Your task to perform on an android device: Search for vegetarian restaurants on Maps Image 0: 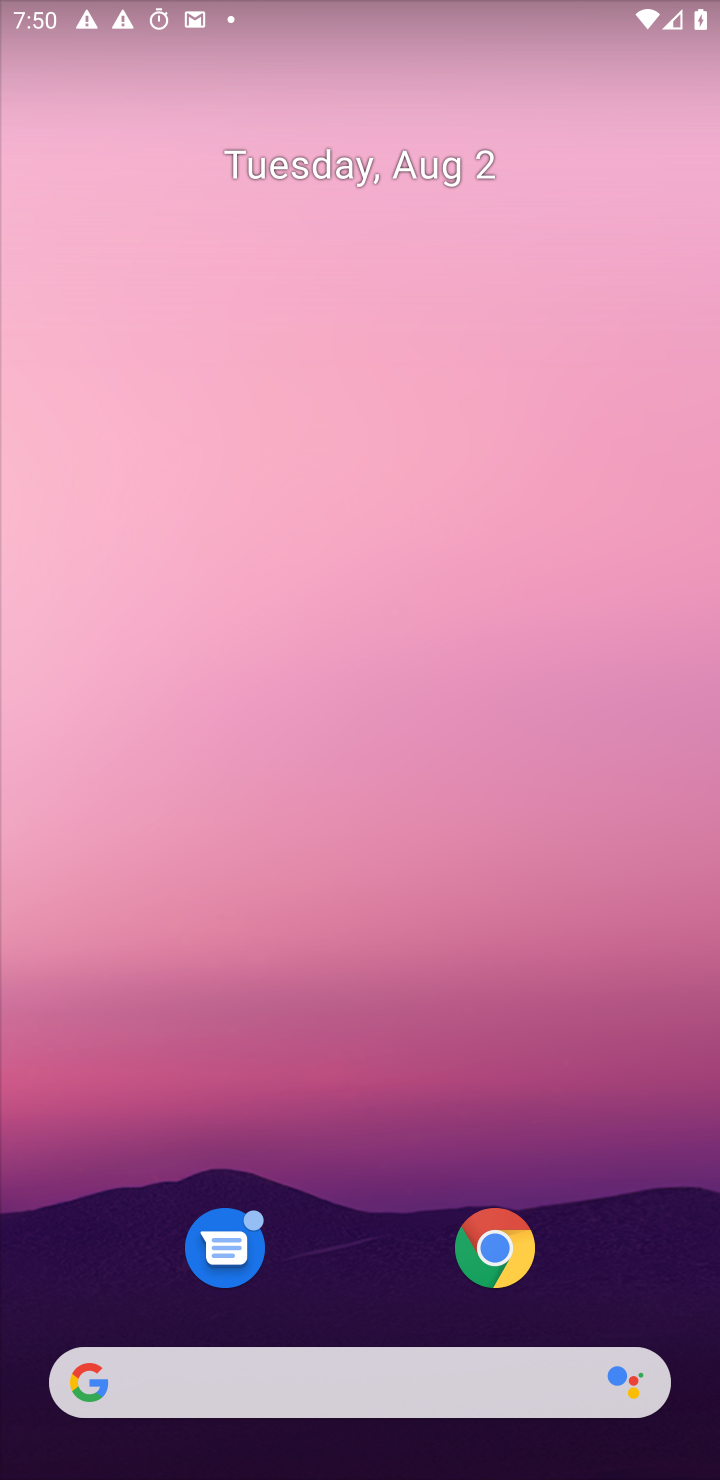
Step 0: drag from (310, 1252) to (449, 170)
Your task to perform on an android device: Search for vegetarian restaurants on Maps Image 1: 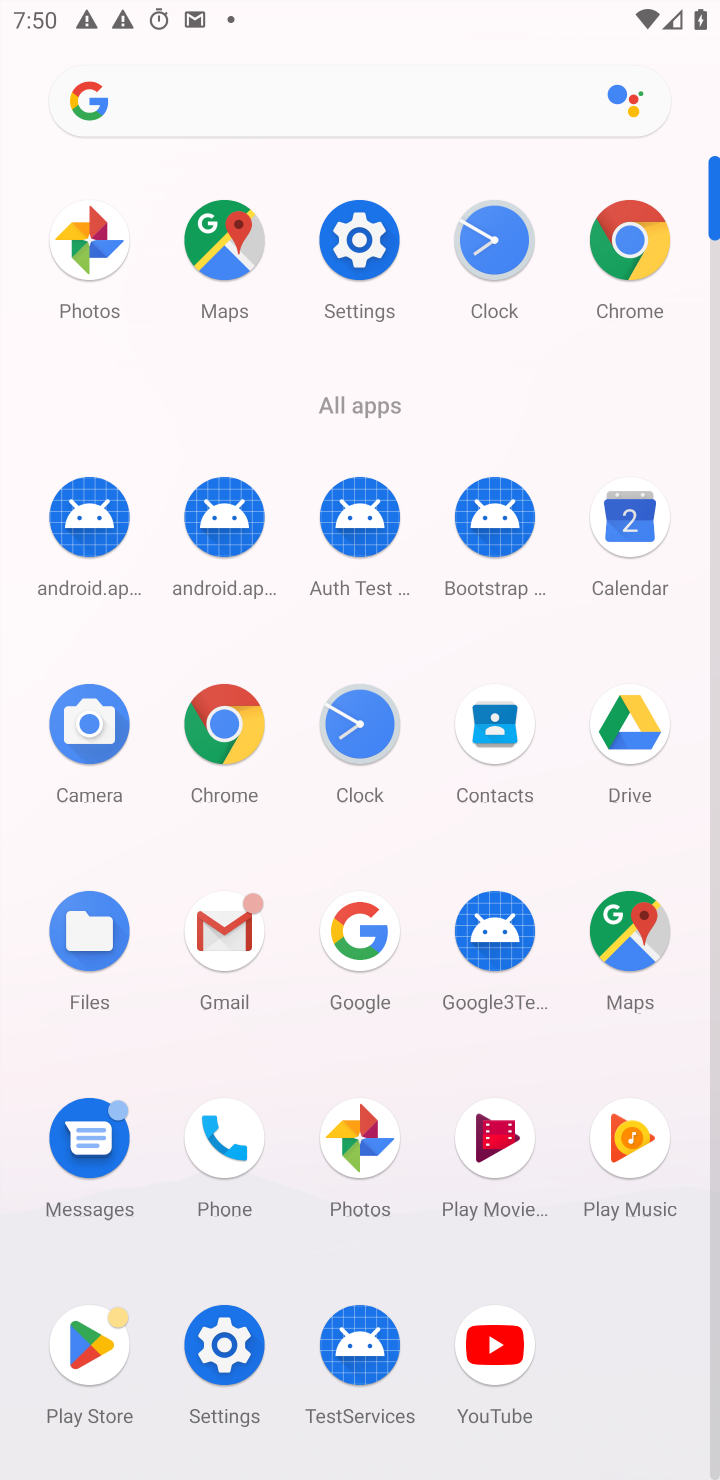
Step 1: click (621, 928)
Your task to perform on an android device: Search for vegetarian restaurants on Maps Image 2: 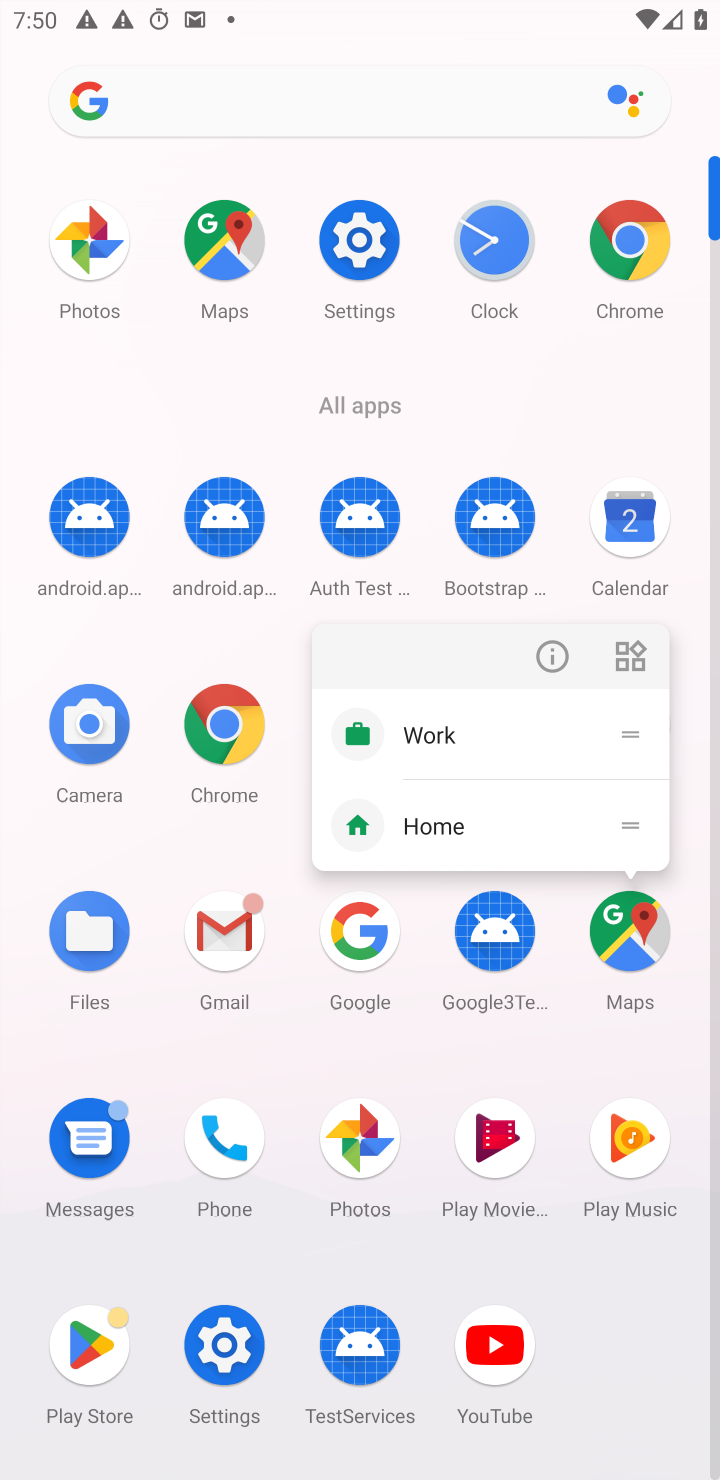
Step 2: click (542, 656)
Your task to perform on an android device: Search for vegetarian restaurants on Maps Image 3: 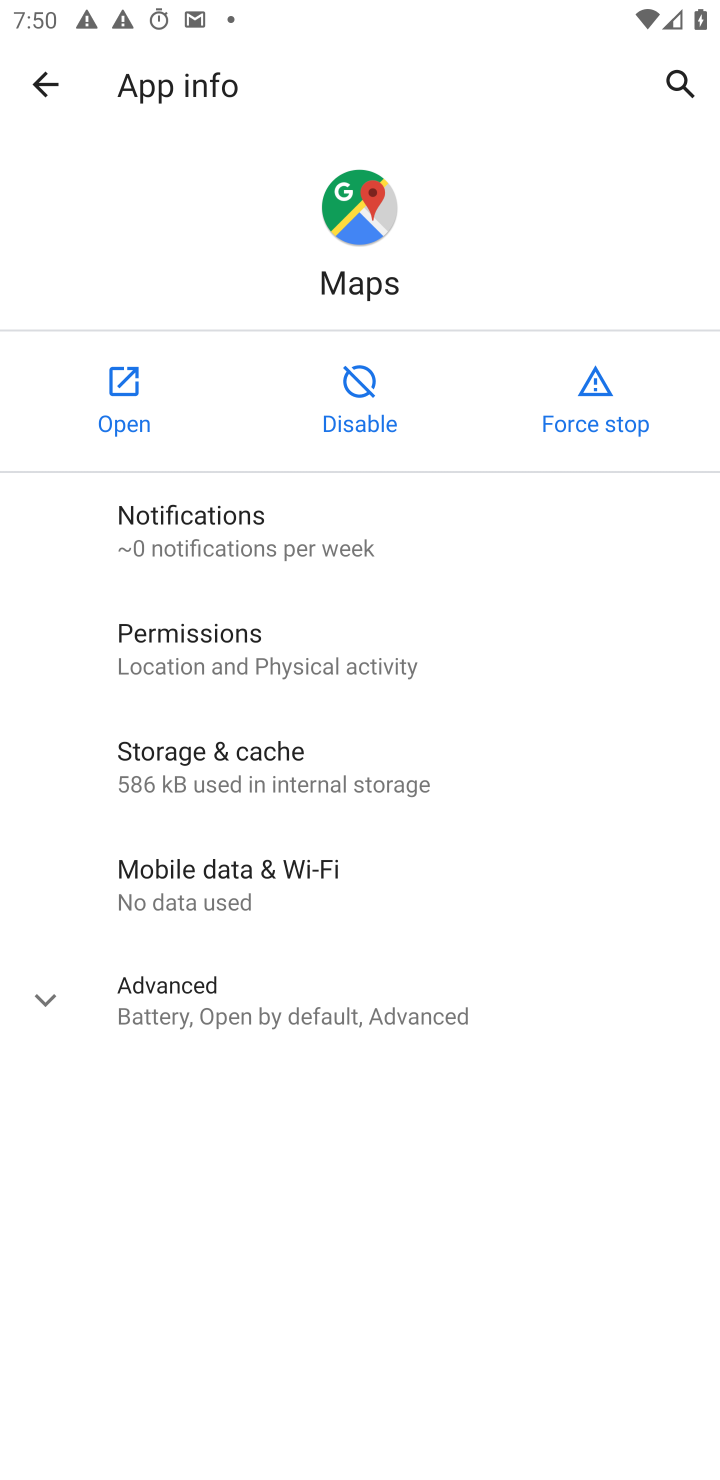
Step 3: click (137, 397)
Your task to perform on an android device: Search for vegetarian restaurants on Maps Image 4: 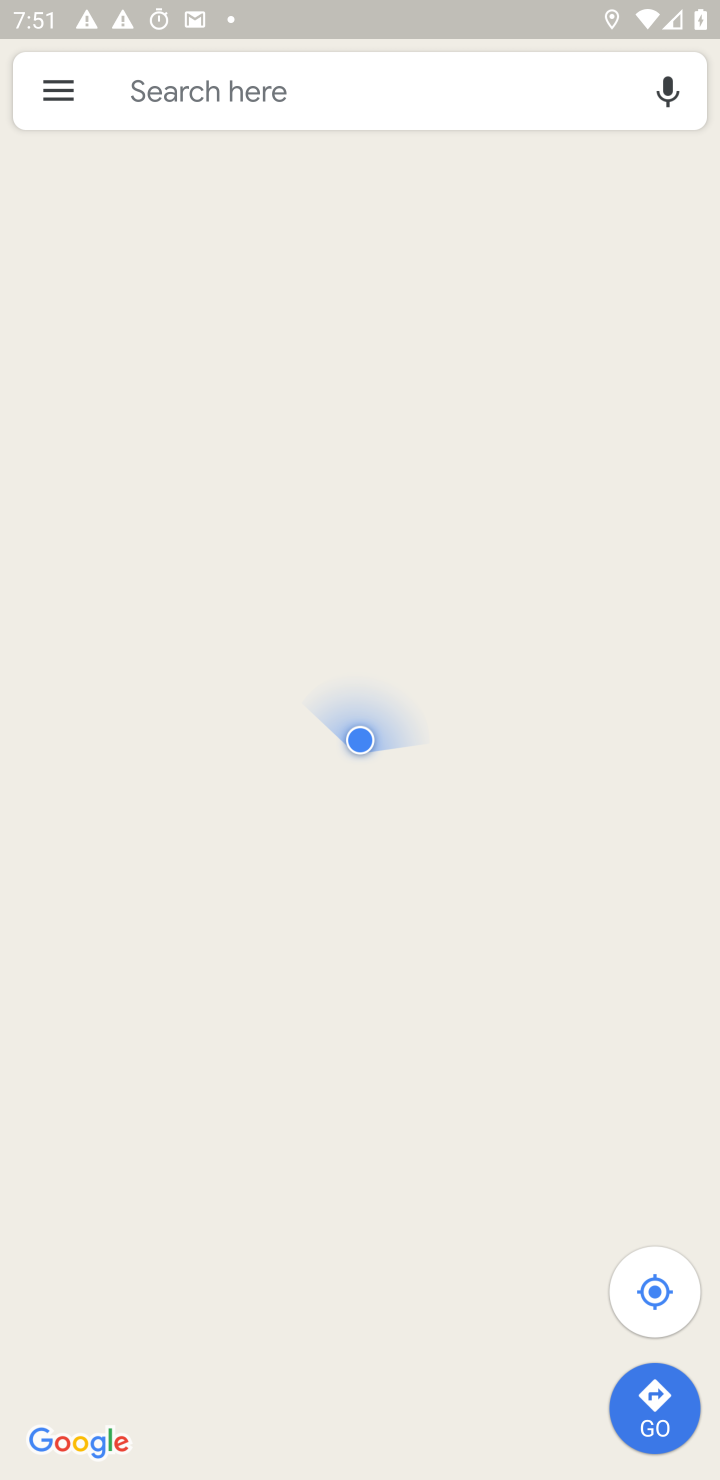
Step 4: drag from (307, 1280) to (459, 1066)
Your task to perform on an android device: Search for vegetarian restaurants on Maps Image 5: 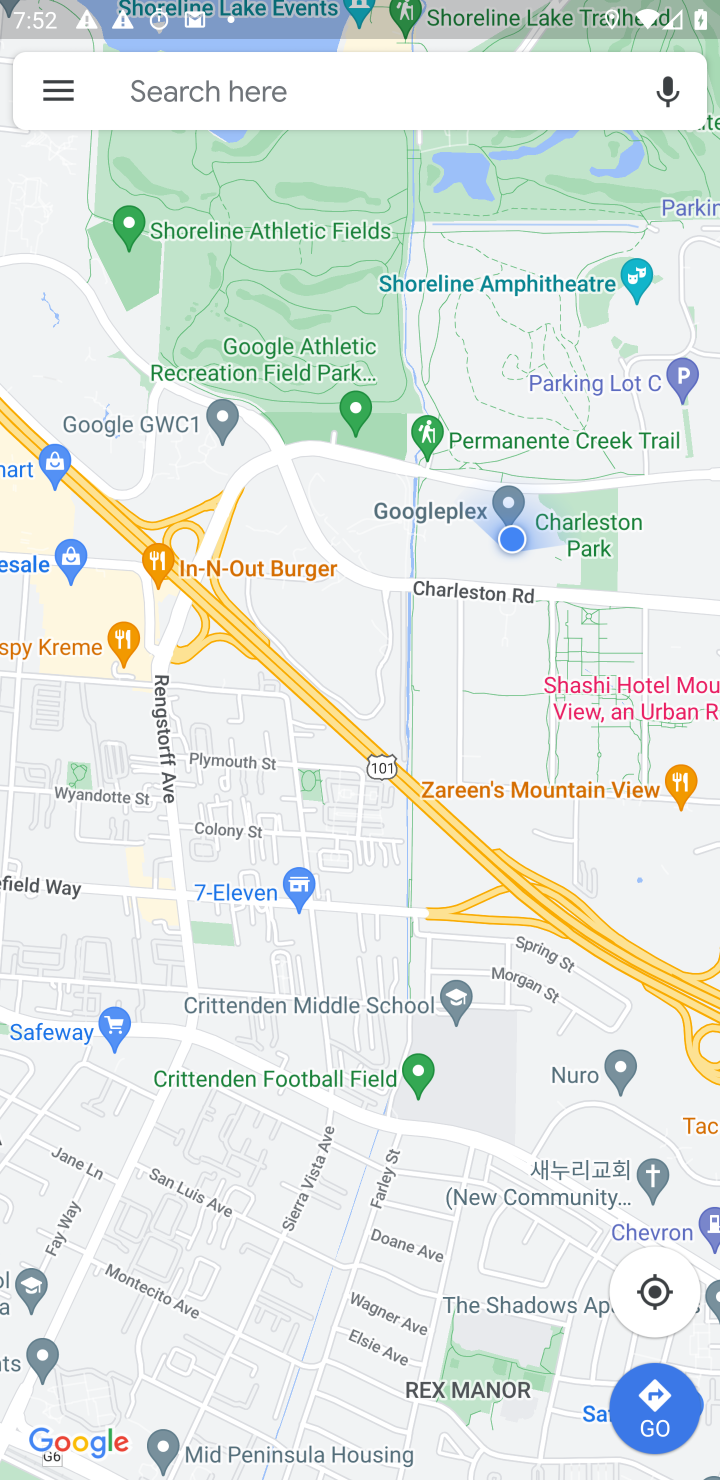
Step 5: click (268, 109)
Your task to perform on an android device: Search for vegetarian restaurants on Maps Image 6: 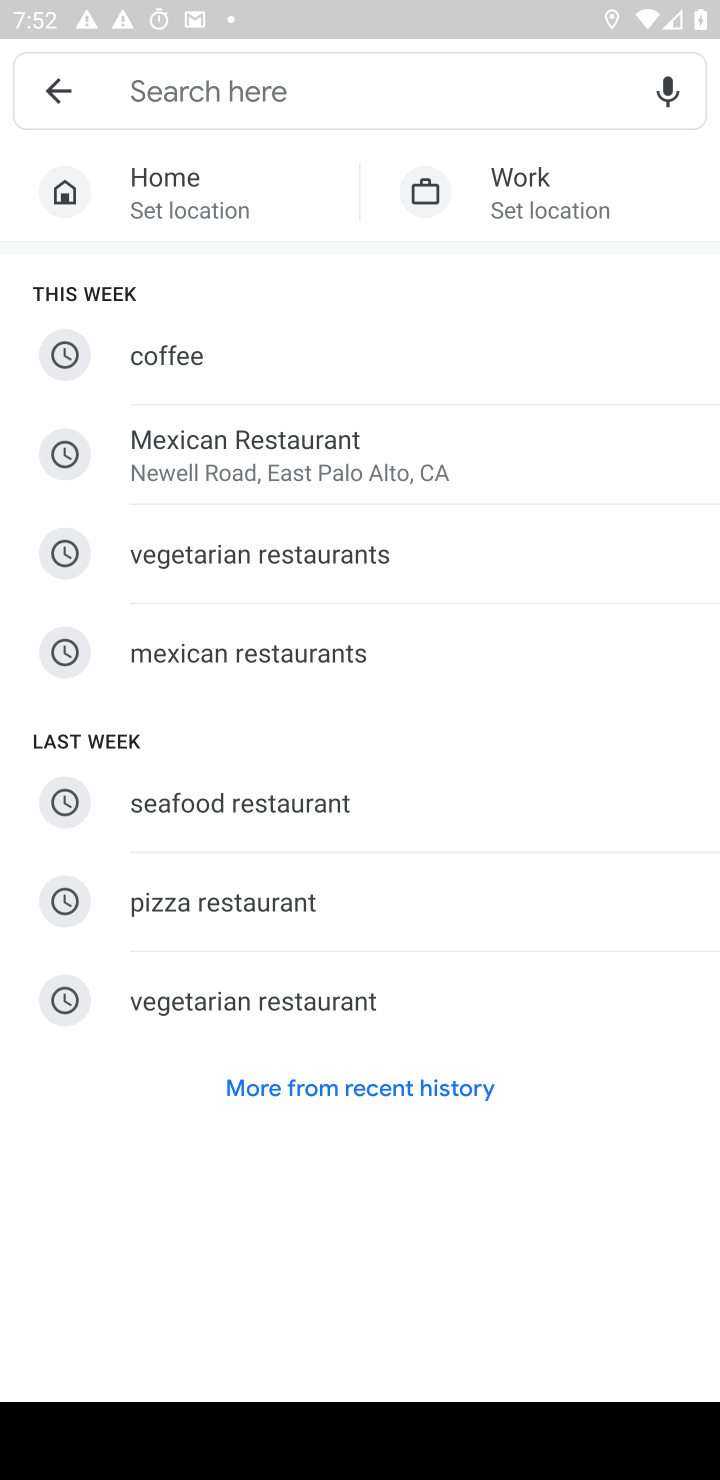
Step 6: type "vegetarian restaurants"
Your task to perform on an android device: Search for vegetarian restaurants on Maps Image 7: 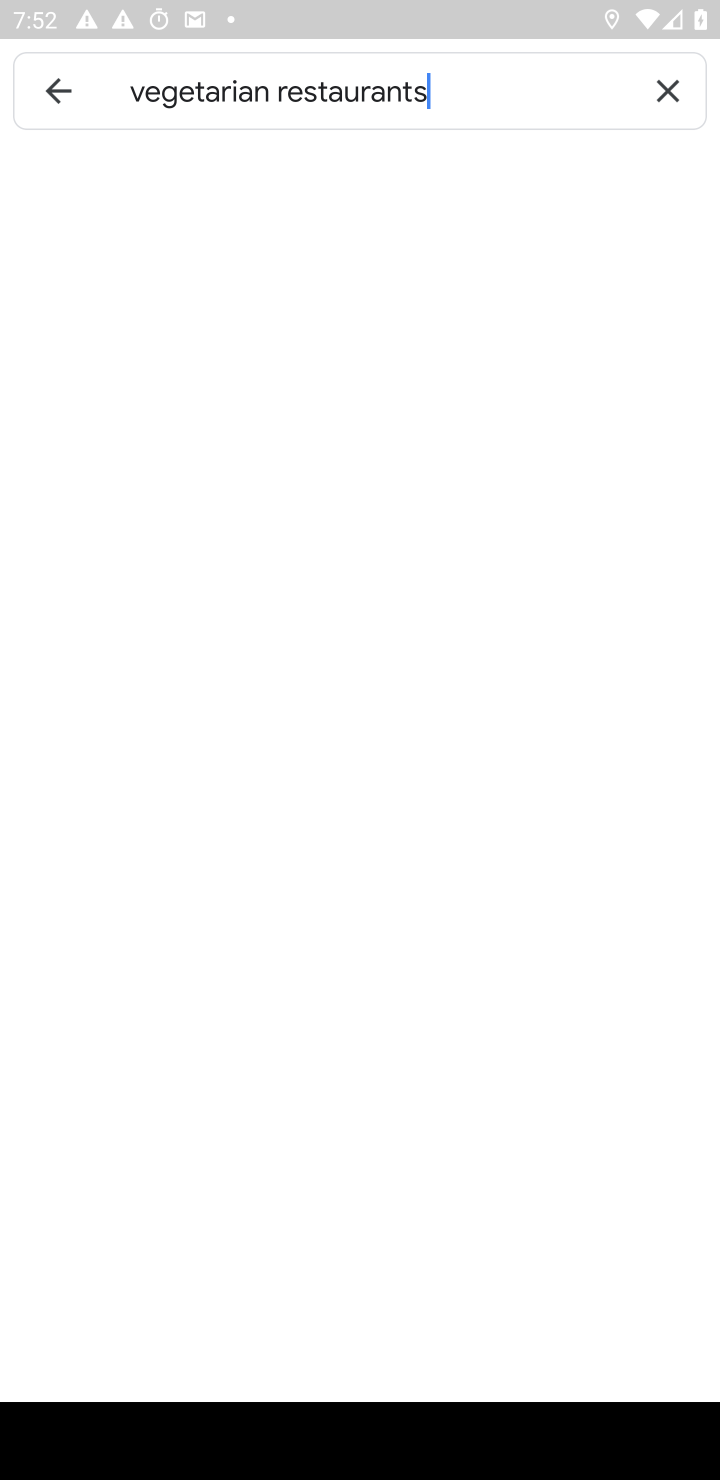
Step 7: type ""
Your task to perform on an android device: Search for vegetarian restaurants on Maps Image 8: 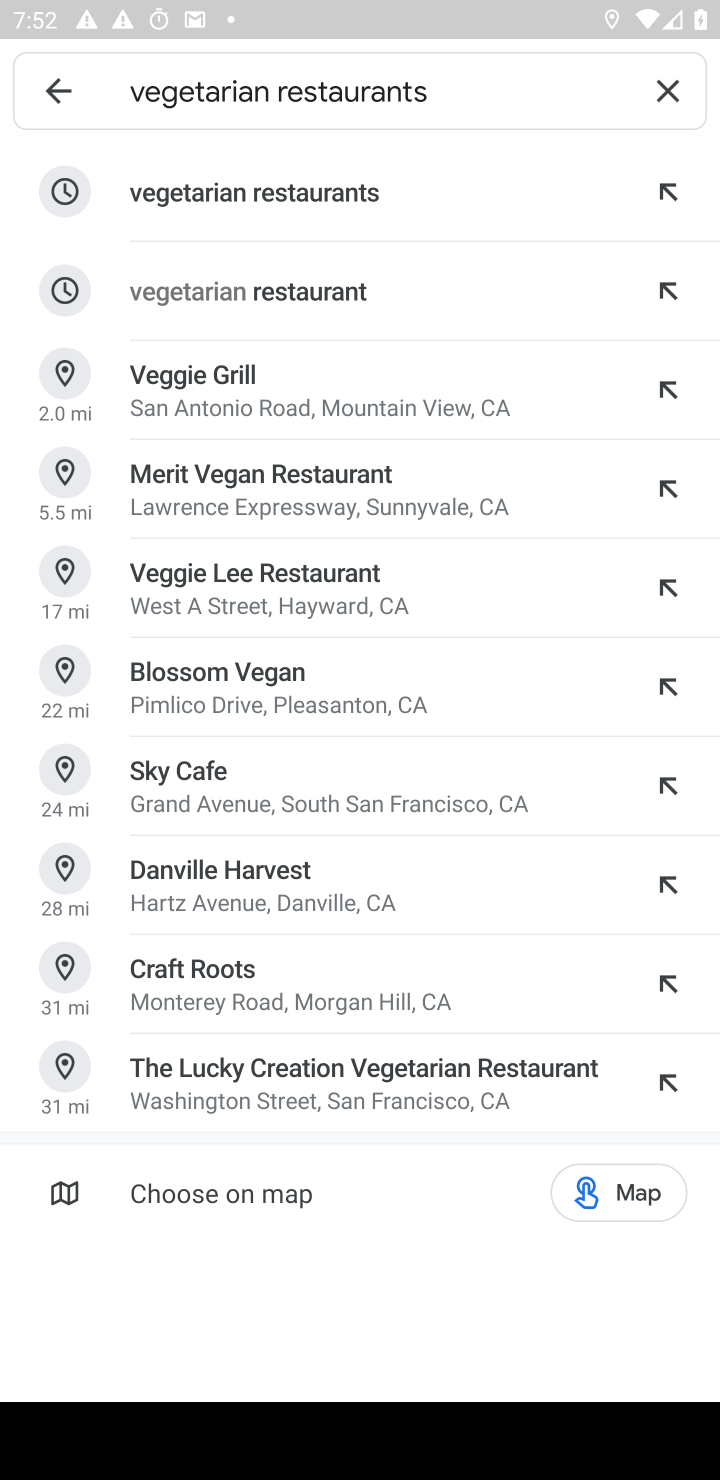
Step 8: click (276, 180)
Your task to perform on an android device: Search for vegetarian restaurants on Maps Image 9: 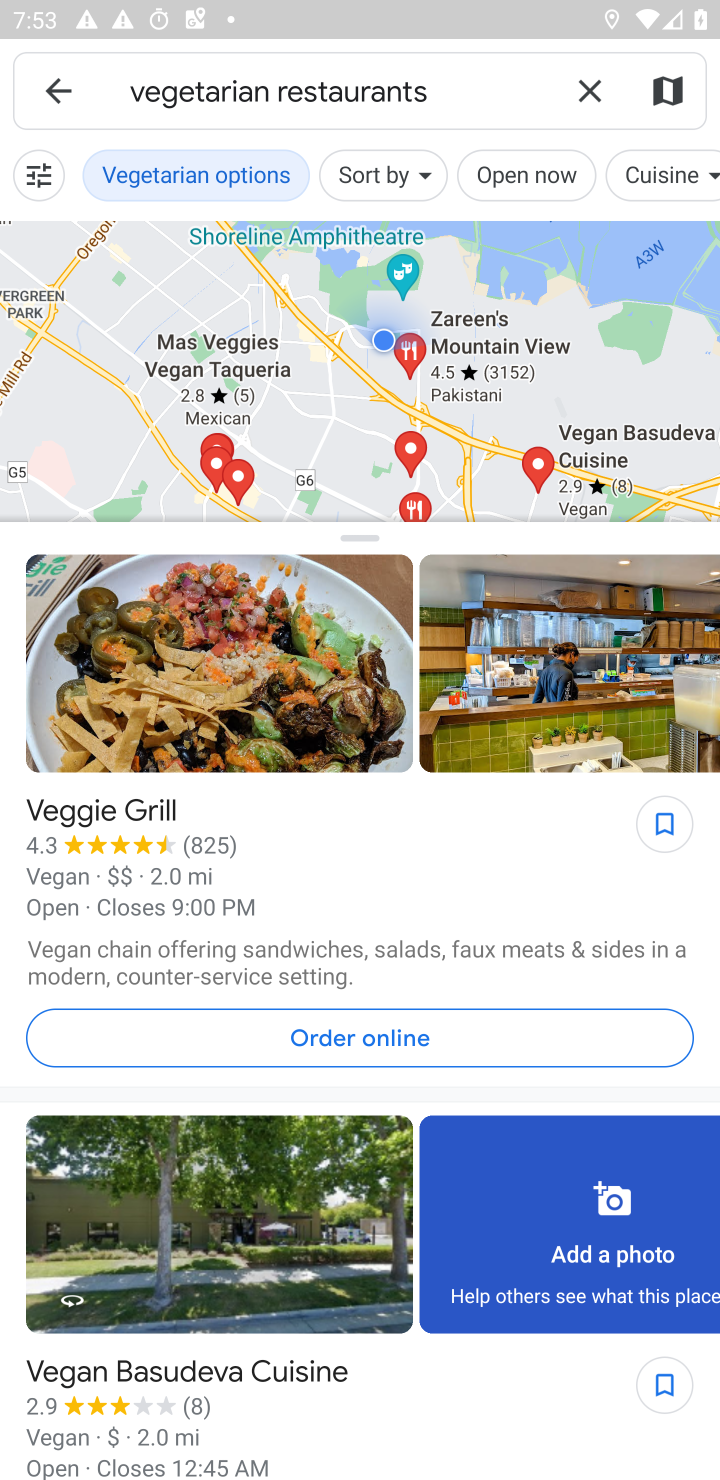
Step 9: drag from (439, 660) to (383, 570)
Your task to perform on an android device: Search for vegetarian restaurants on Maps Image 10: 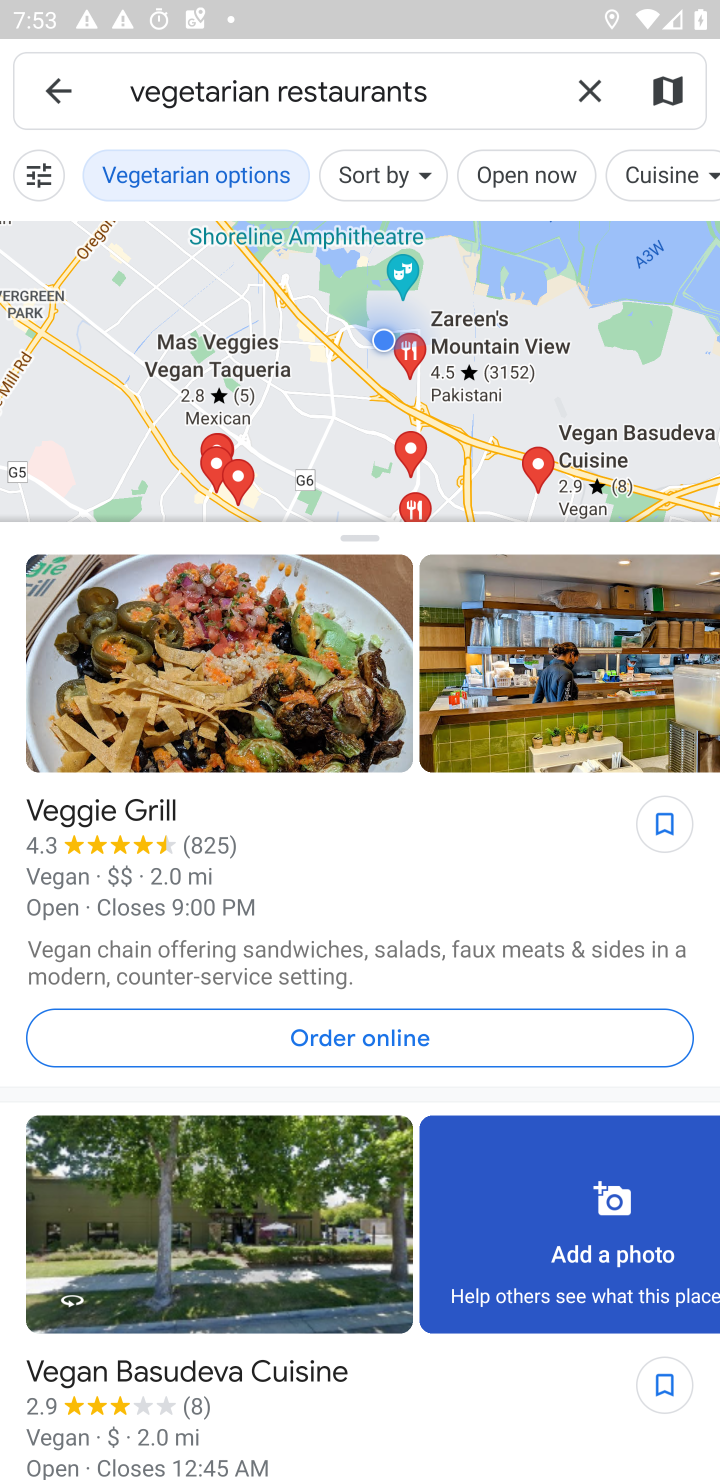
Step 10: drag from (417, 966) to (450, 747)
Your task to perform on an android device: Search for vegetarian restaurants on Maps Image 11: 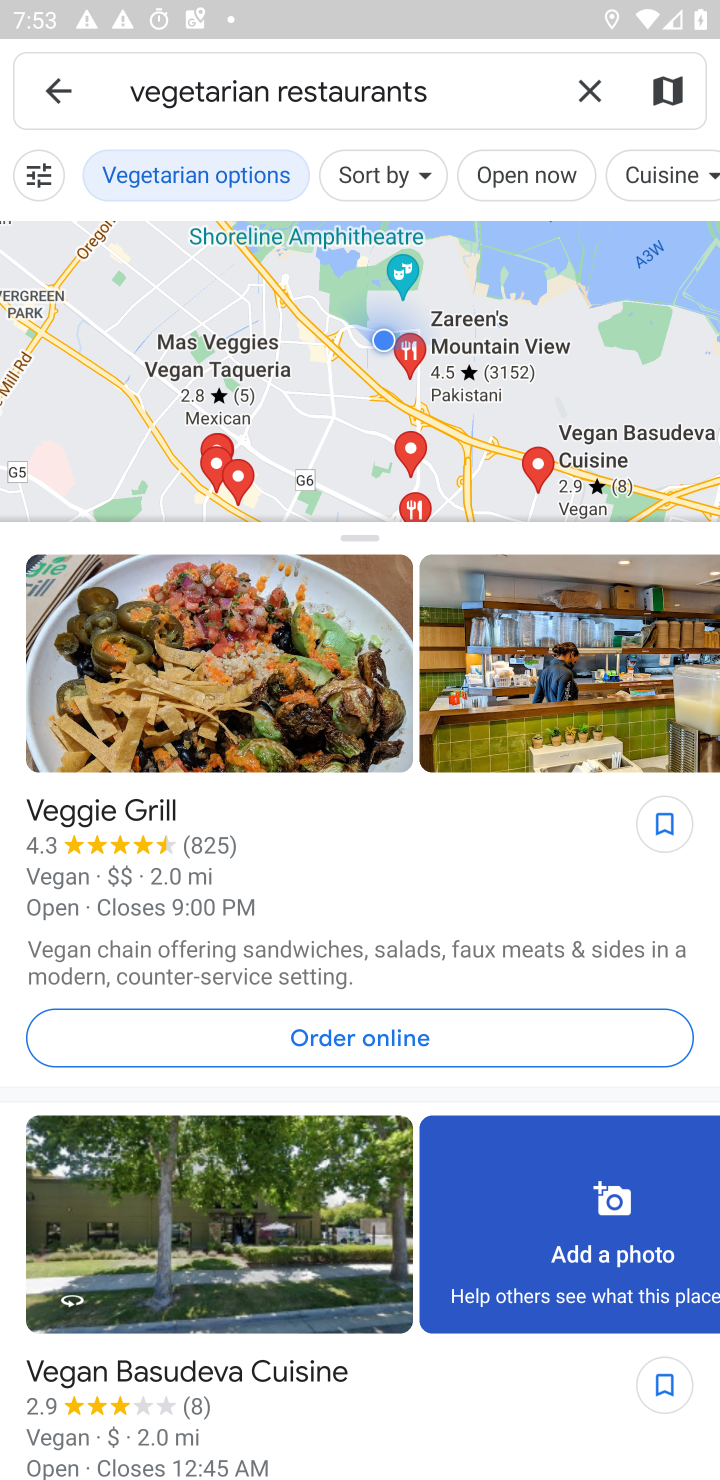
Step 11: drag from (382, 1364) to (414, 863)
Your task to perform on an android device: Search for vegetarian restaurants on Maps Image 12: 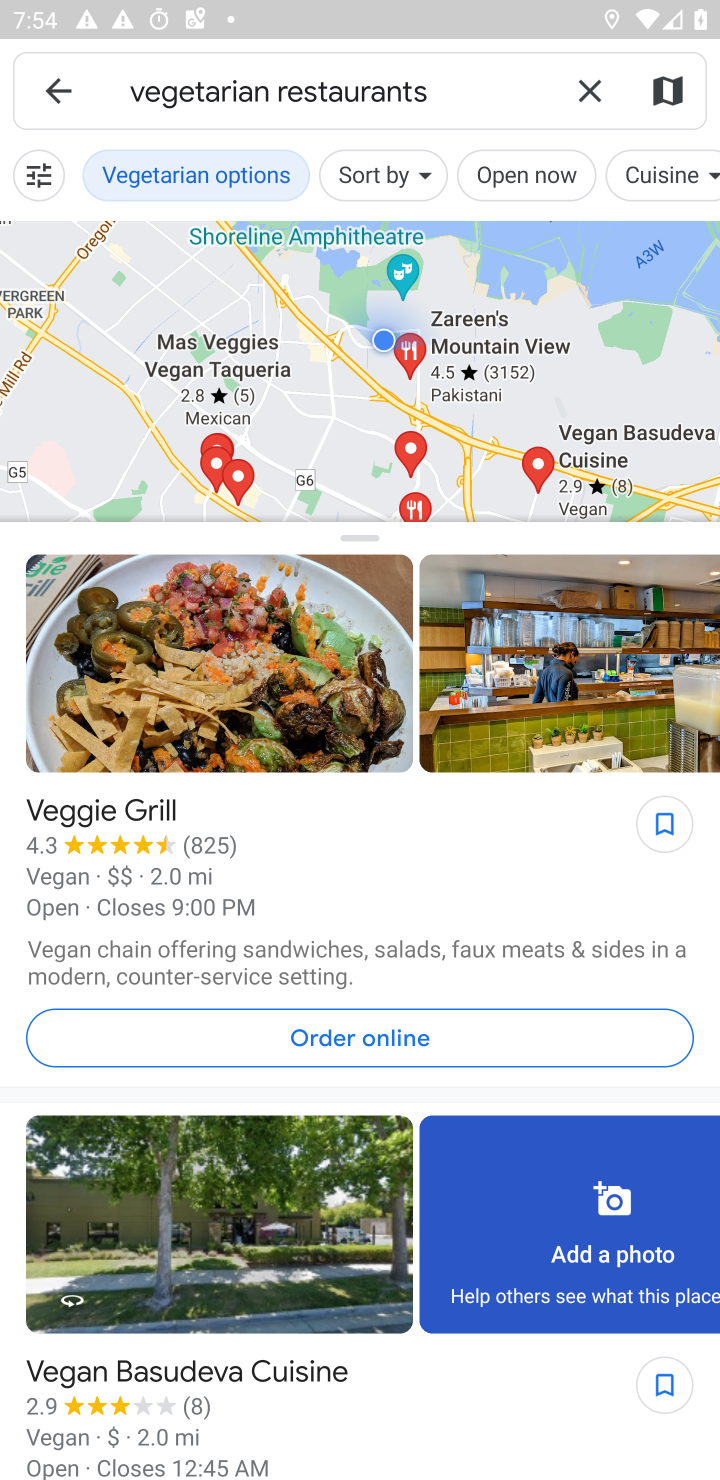
Step 12: drag from (409, 1380) to (436, 763)
Your task to perform on an android device: Search for vegetarian restaurants on Maps Image 13: 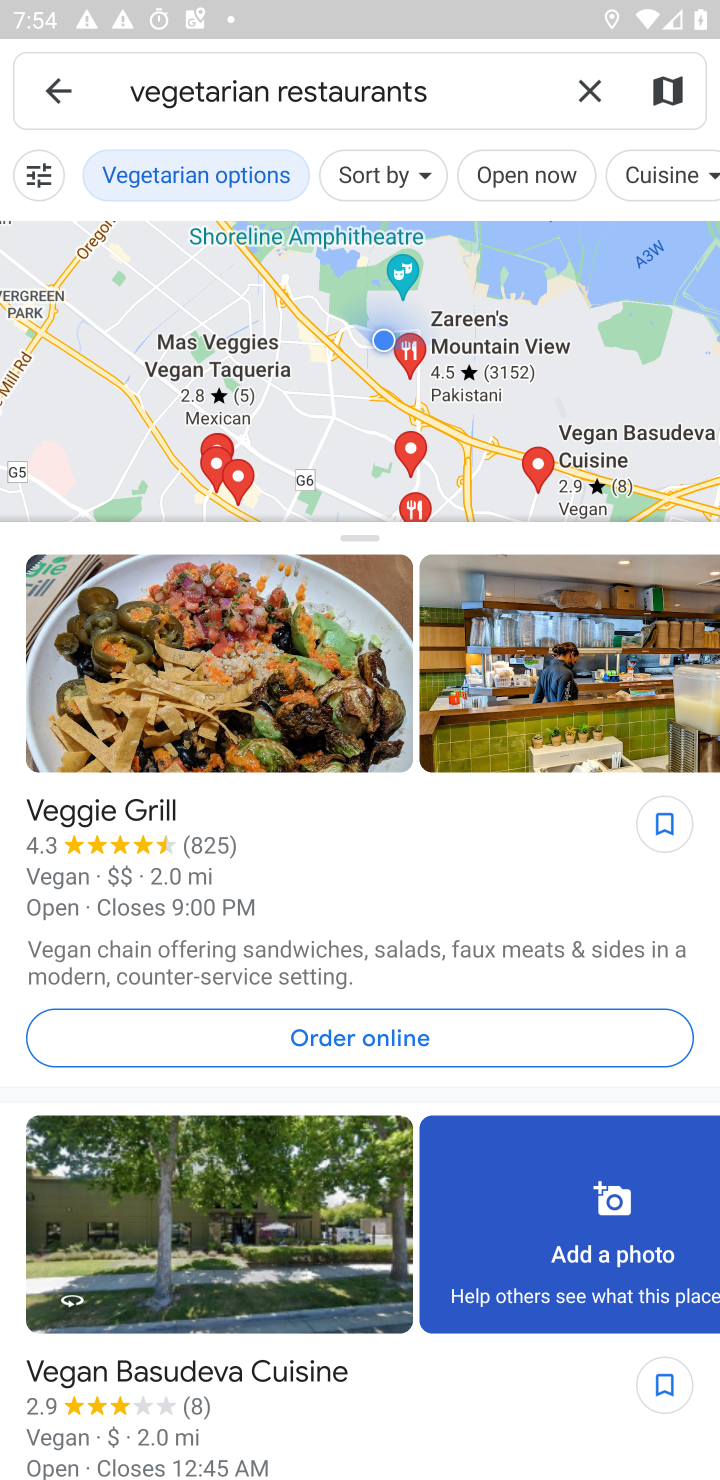
Step 13: drag from (420, 1237) to (425, 661)
Your task to perform on an android device: Search for vegetarian restaurants on Maps Image 14: 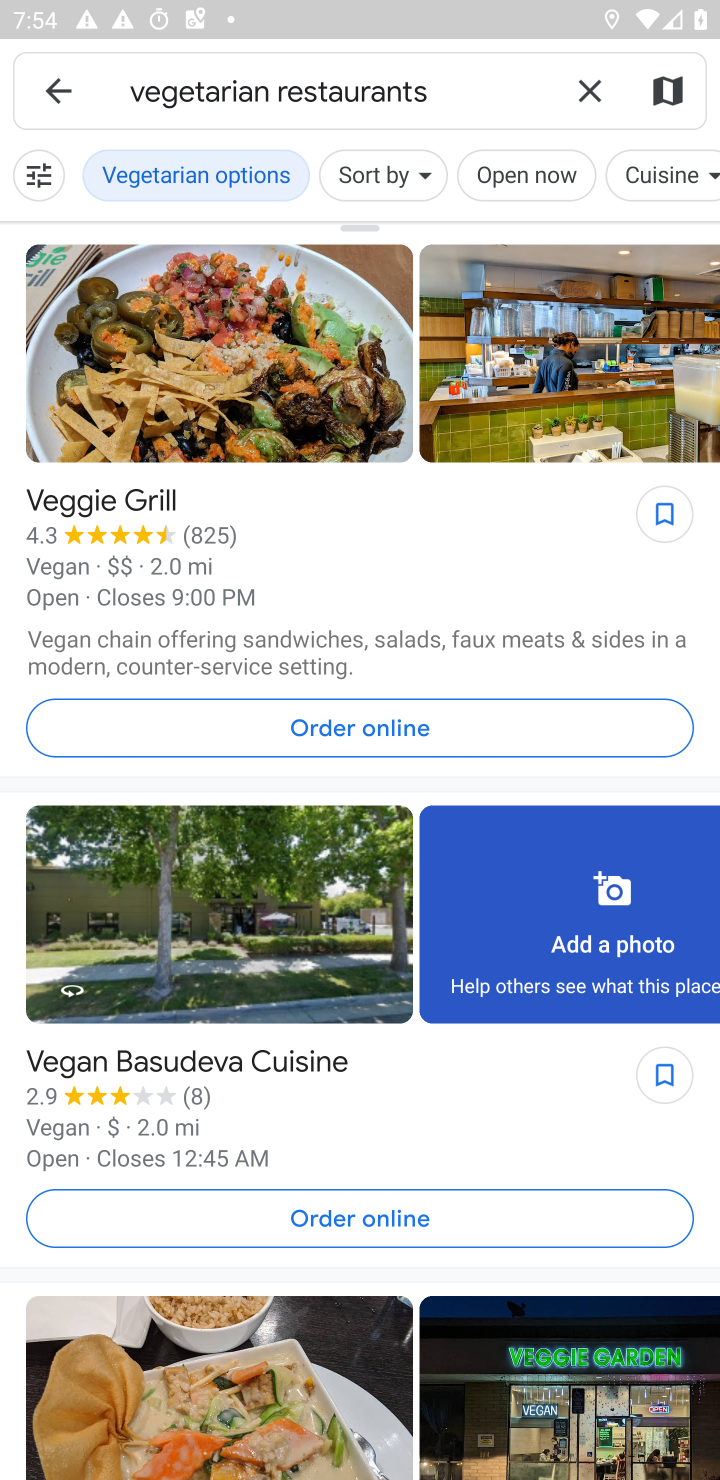
Step 14: click (716, 350)
Your task to perform on an android device: Search for vegetarian restaurants on Maps Image 15: 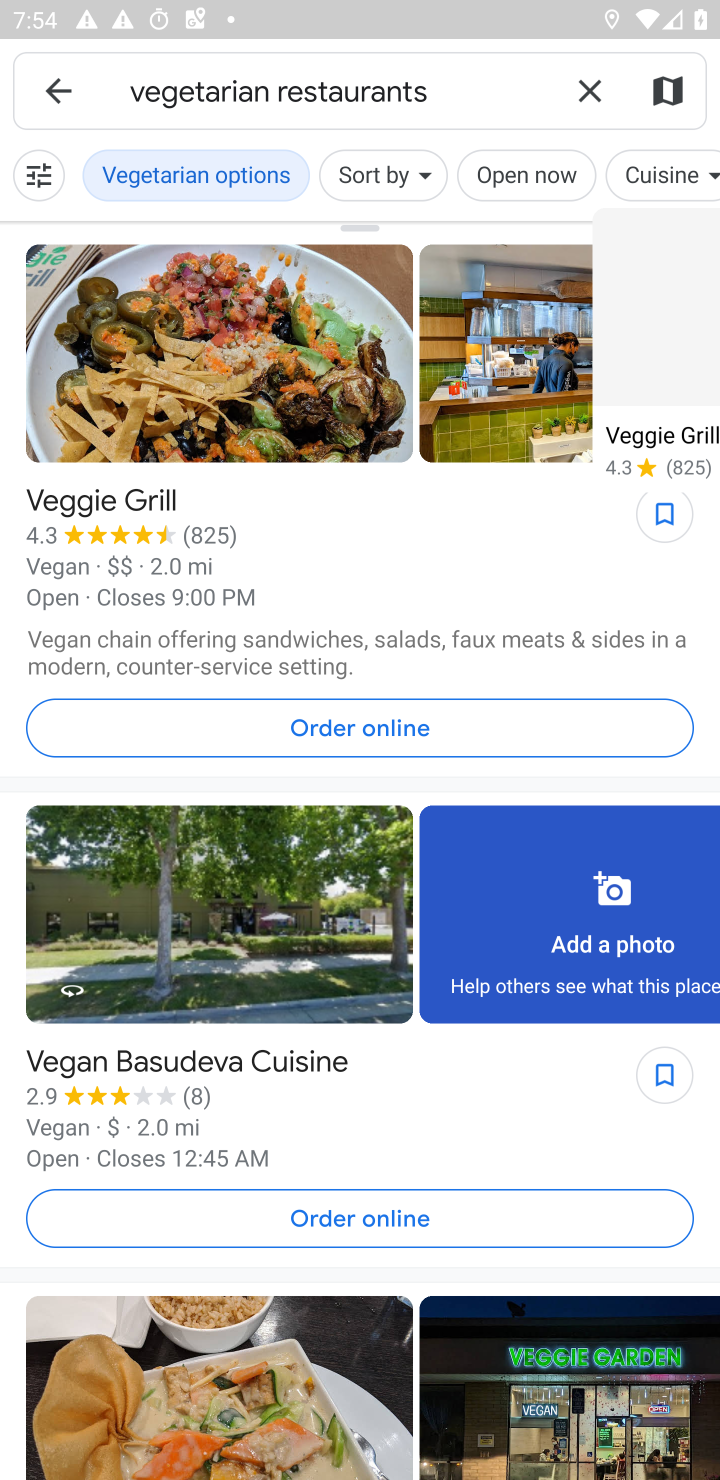
Step 15: task complete